Your task to perform on an android device: Is it going to rain tomorrow? Image 0: 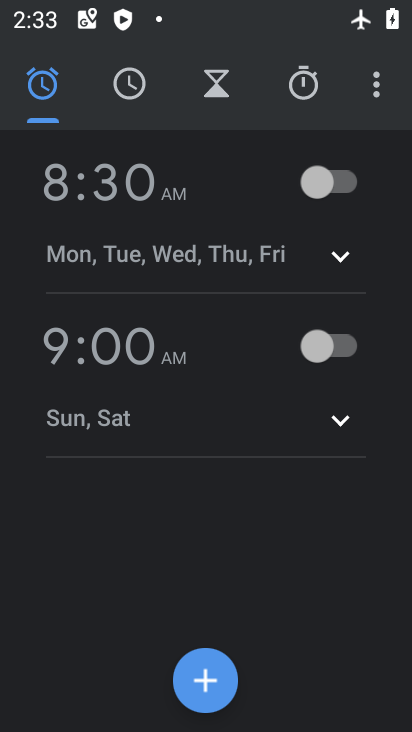
Step 0: press home button
Your task to perform on an android device: Is it going to rain tomorrow? Image 1: 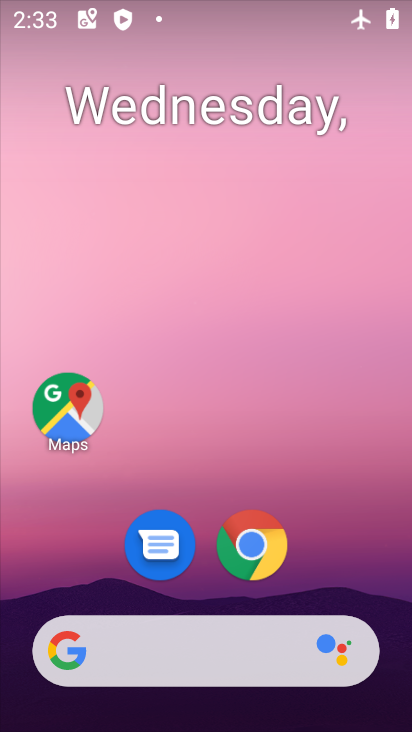
Step 1: click (347, 526)
Your task to perform on an android device: Is it going to rain tomorrow? Image 2: 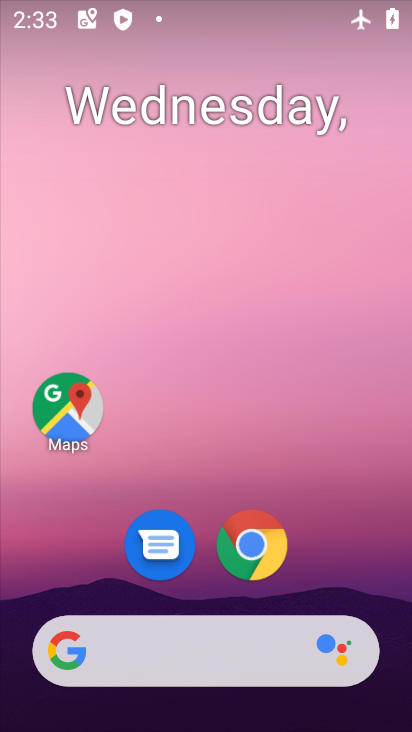
Step 2: click (255, 543)
Your task to perform on an android device: Is it going to rain tomorrow? Image 3: 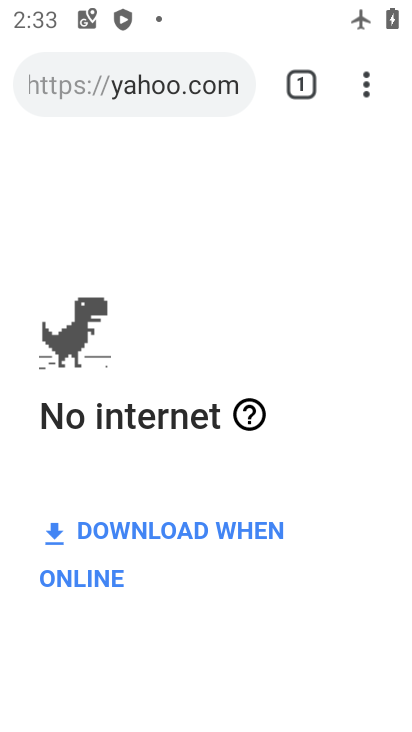
Step 3: click (179, 73)
Your task to perform on an android device: Is it going to rain tomorrow? Image 4: 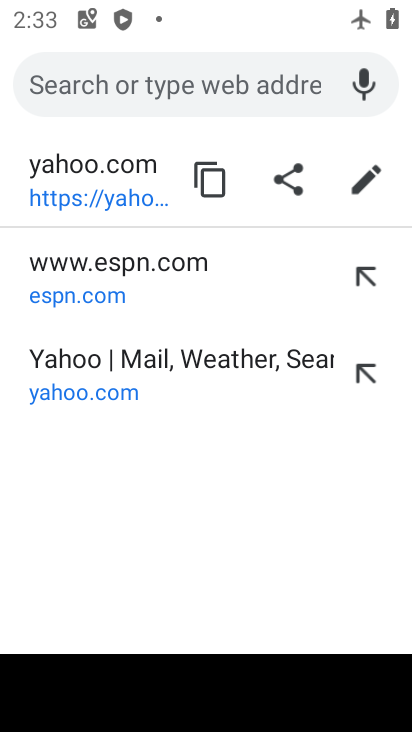
Step 4: type "weather"
Your task to perform on an android device: Is it going to rain tomorrow? Image 5: 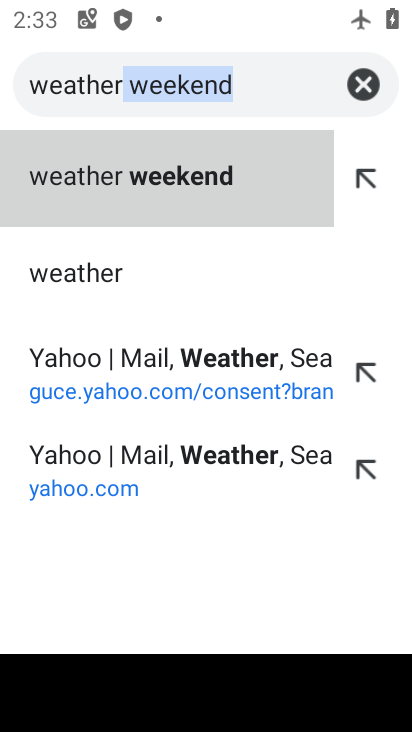
Step 5: click (94, 270)
Your task to perform on an android device: Is it going to rain tomorrow? Image 6: 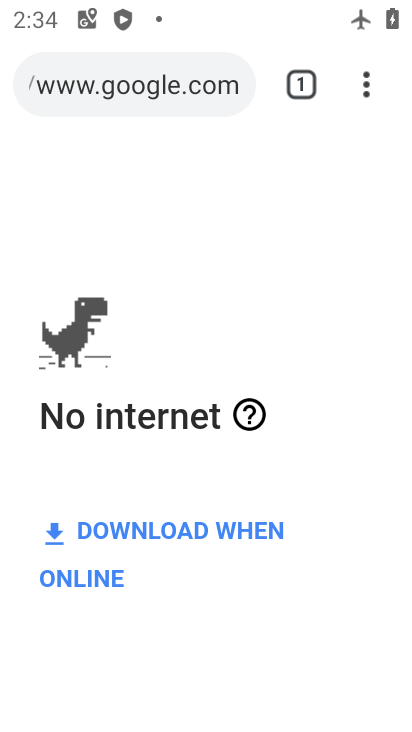
Step 6: task complete